Your task to perform on an android device: Check the weather Image 0: 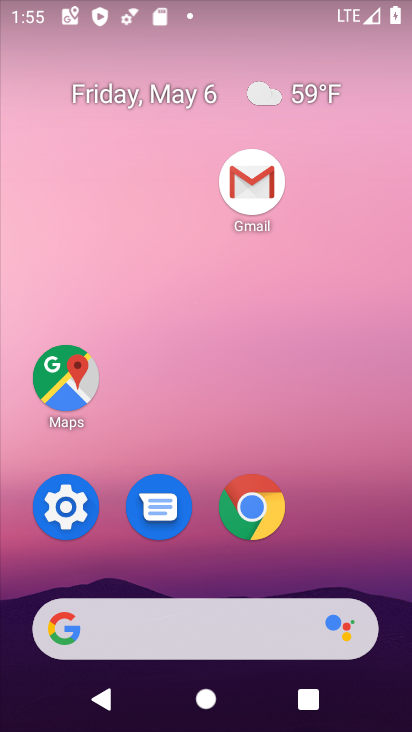
Step 0: click (296, 89)
Your task to perform on an android device: Check the weather Image 1: 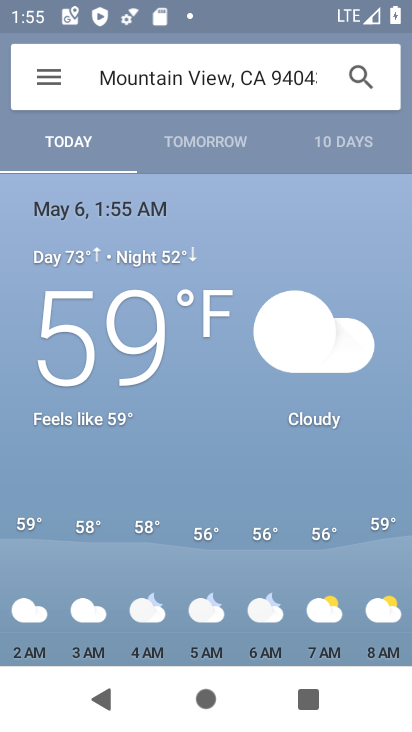
Step 1: task complete